Your task to perform on an android device: open device folders in google photos Image 0: 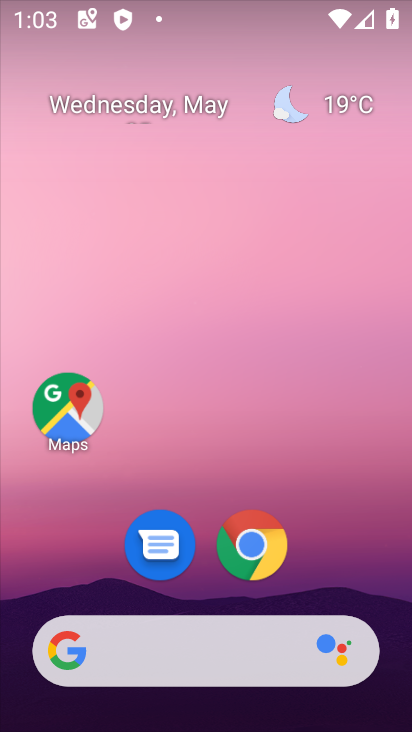
Step 0: drag from (195, 601) to (226, 132)
Your task to perform on an android device: open device folders in google photos Image 1: 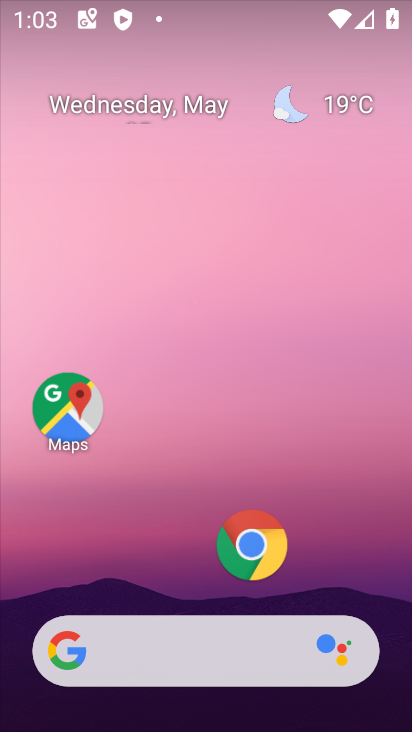
Step 1: drag from (224, 291) to (327, 87)
Your task to perform on an android device: open device folders in google photos Image 2: 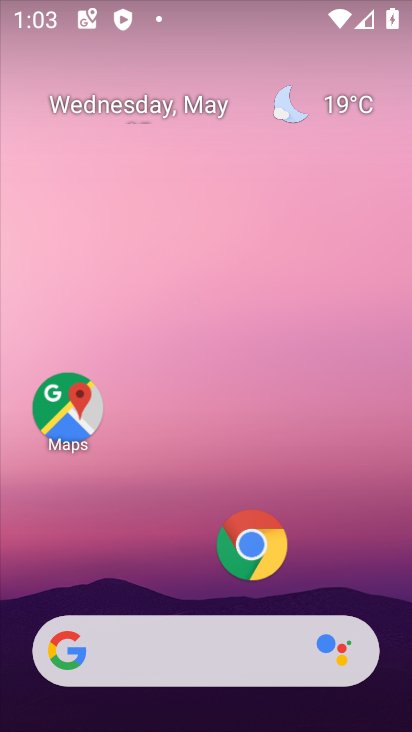
Step 2: click (195, 139)
Your task to perform on an android device: open device folders in google photos Image 3: 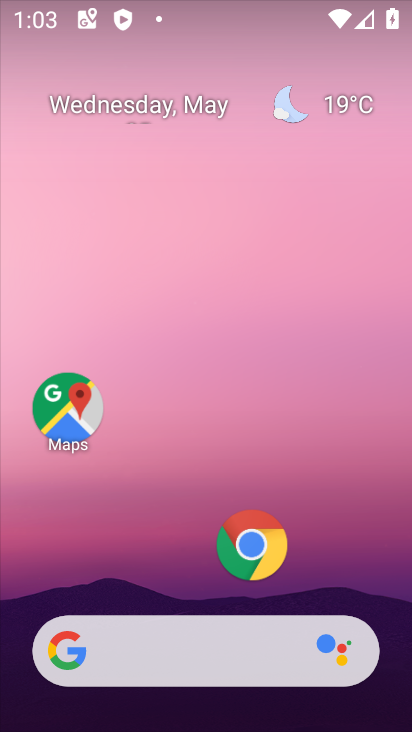
Step 3: drag from (149, 579) to (140, 147)
Your task to perform on an android device: open device folders in google photos Image 4: 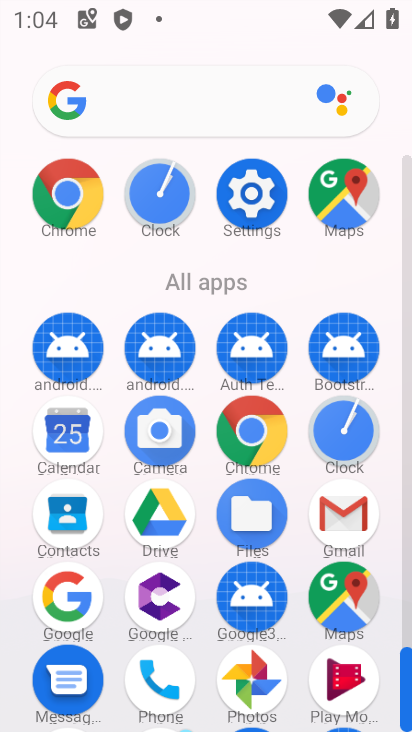
Step 4: click (243, 670)
Your task to perform on an android device: open device folders in google photos Image 5: 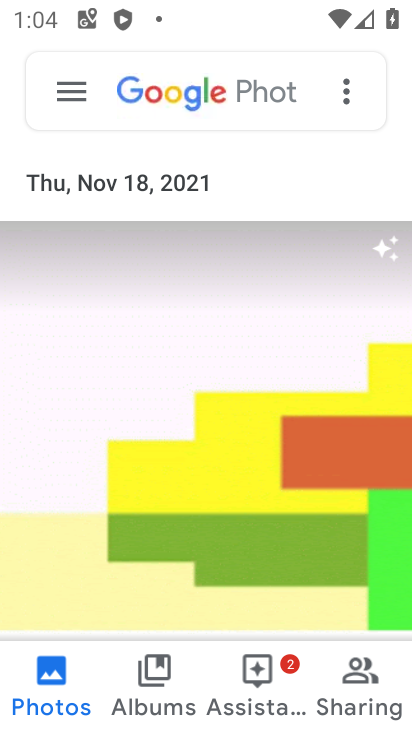
Step 5: click (69, 101)
Your task to perform on an android device: open device folders in google photos Image 6: 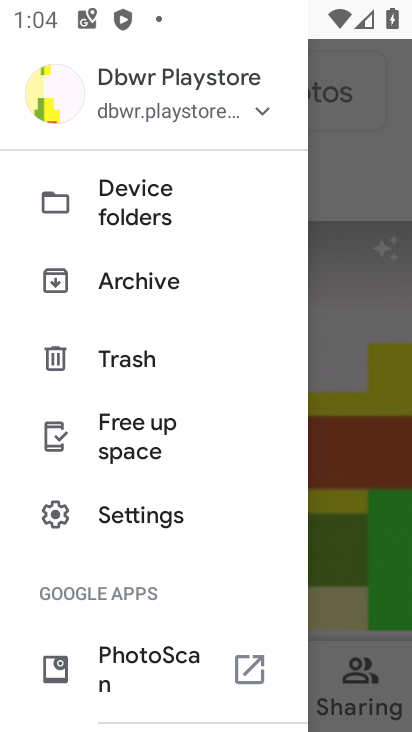
Step 6: click (136, 197)
Your task to perform on an android device: open device folders in google photos Image 7: 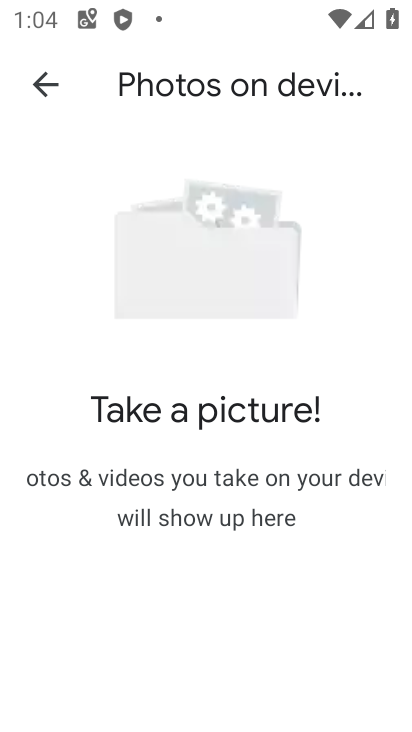
Step 7: task complete